Your task to perform on an android device: change alarm snooze length Image 0: 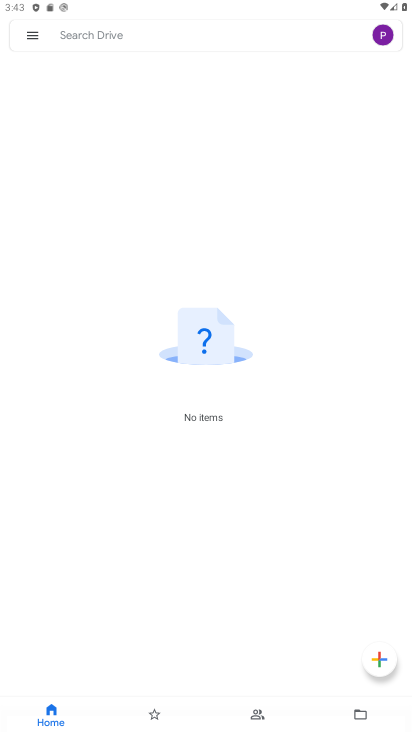
Step 0: drag from (230, 576) to (215, 133)
Your task to perform on an android device: change alarm snooze length Image 1: 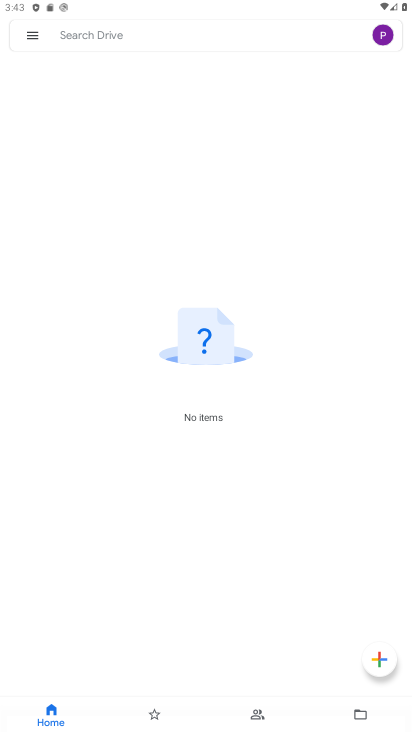
Step 1: press back button
Your task to perform on an android device: change alarm snooze length Image 2: 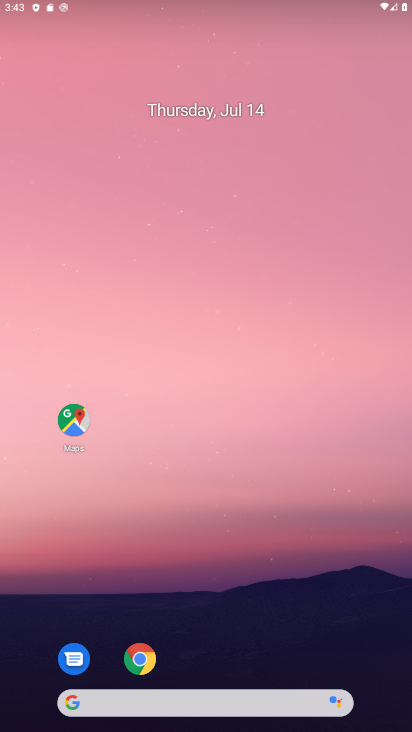
Step 2: drag from (202, 388) to (91, 35)
Your task to perform on an android device: change alarm snooze length Image 3: 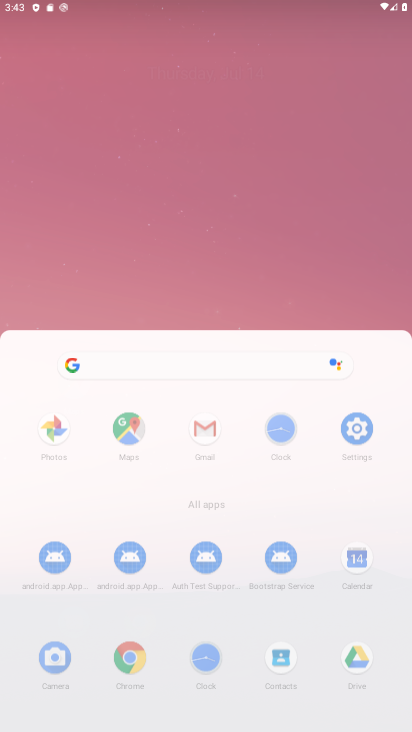
Step 3: drag from (251, 520) to (150, 130)
Your task to perform on an android device: change alarm snooze length Image 4: 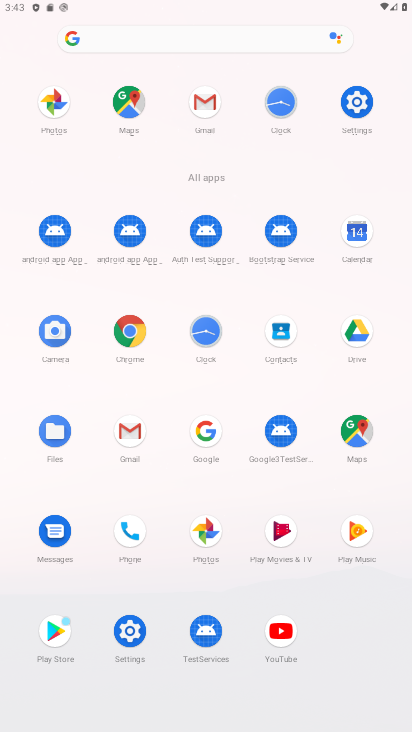
Step 4: click (202, 325)
Your task to perform on an android device: change alarm snooze length Image 5: 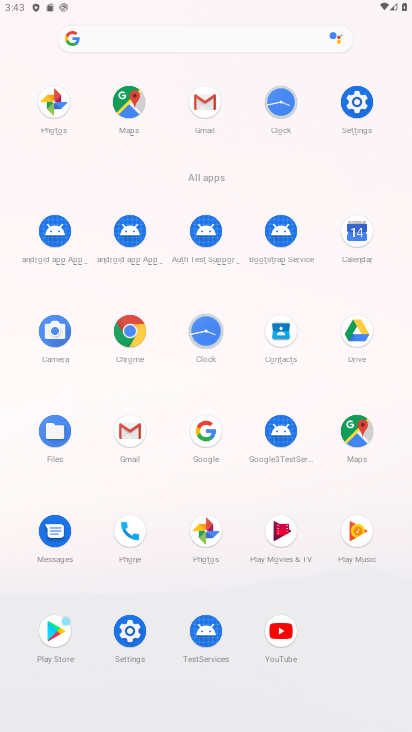
Step 5: click (204, 326)
Your task to perform on an android device: change alarm snooze length Image 6: 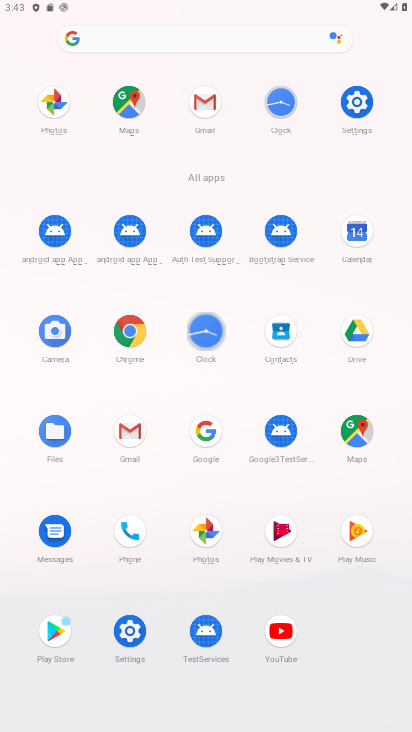
Step 6: click (205, 327)
Your task to perform on an android device: change alarm snooze length Image 7: 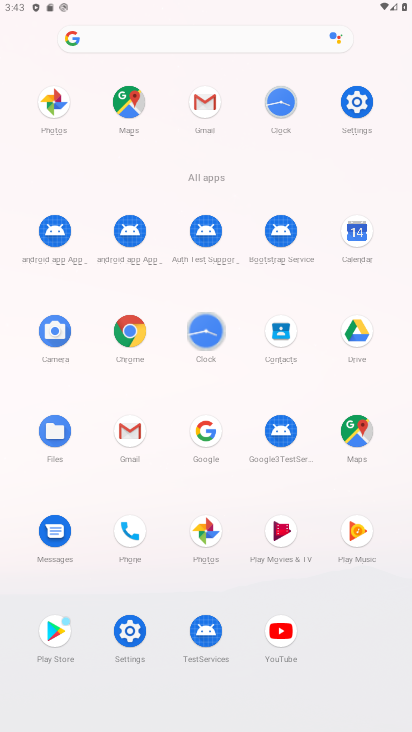
Step 7: click (206, 327)
Your task to perform on an android device: change alarm snooze length Image 8: 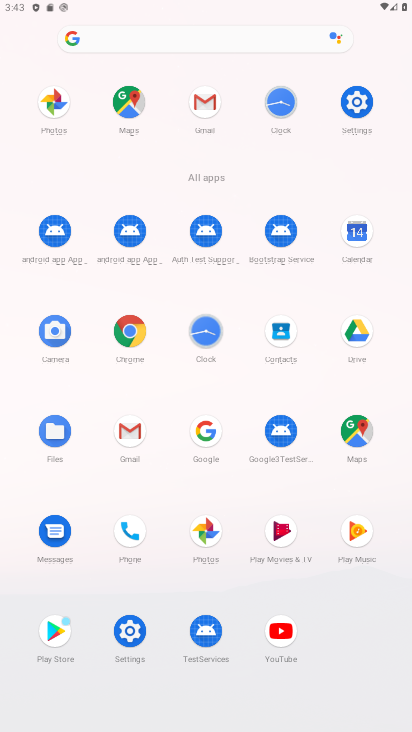
Step 8: click (213, 330)
Your task to perform on an android device: change alarm snooze length Image 9: 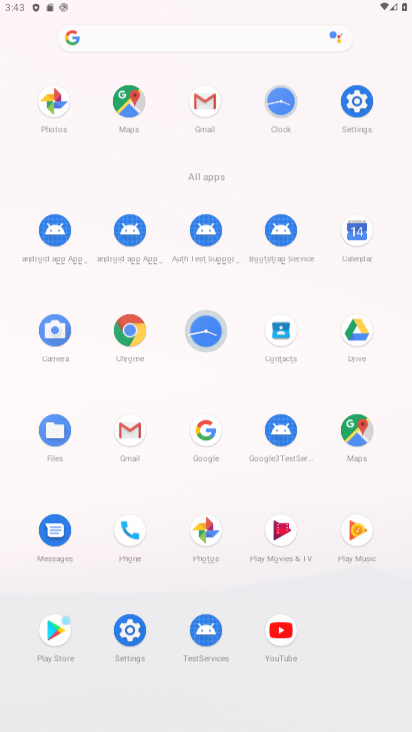
Step 9: click (218, 334)
Your task to perform on an android device: change alarm snooze length Image 10: 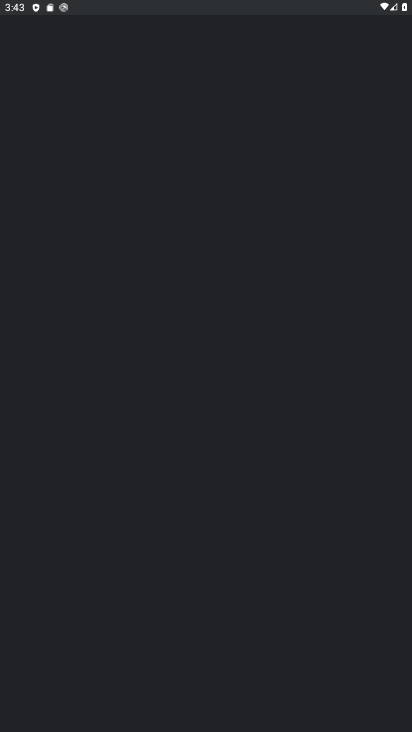
Step 10: click (216, 335)
Your task to perform on an android device: change alarm snooze length Image 11: 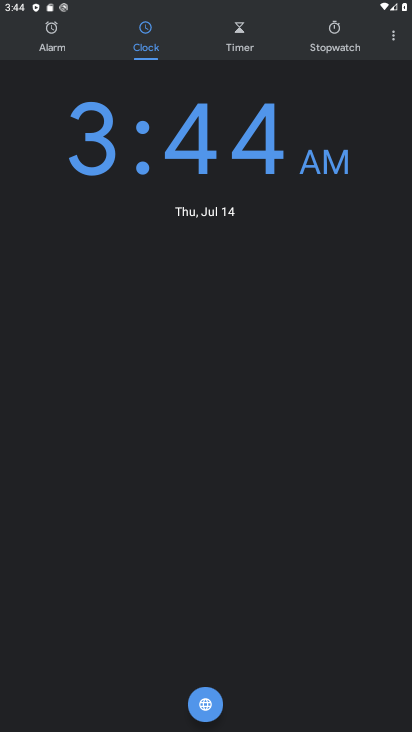
Step 11: click (391, 40)
Your task to perform on an android device: change alarm snooze length Image 12: 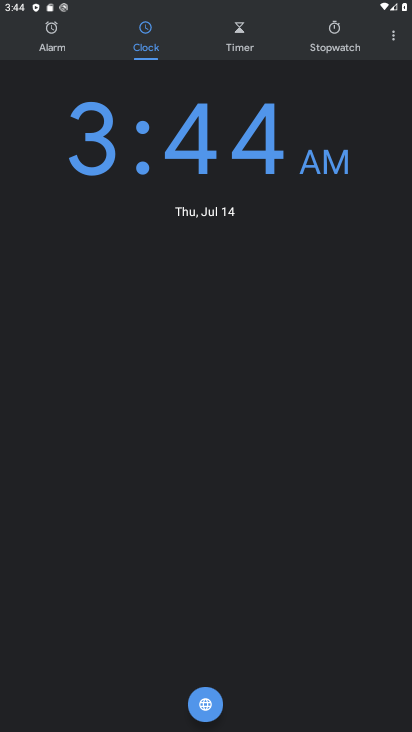
Step 12: click (399, 28)
Your task to perform on an android device: change alarm snooze length Image 13: 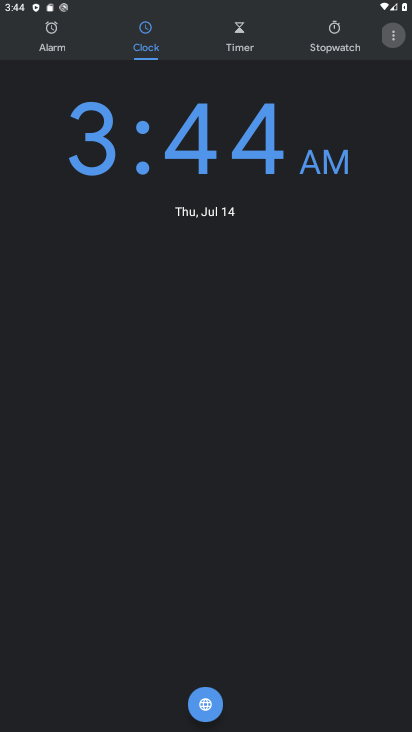
Step 13: click (399, 28)
Your task to perform on an android device: change alarm snooze length Image 14: 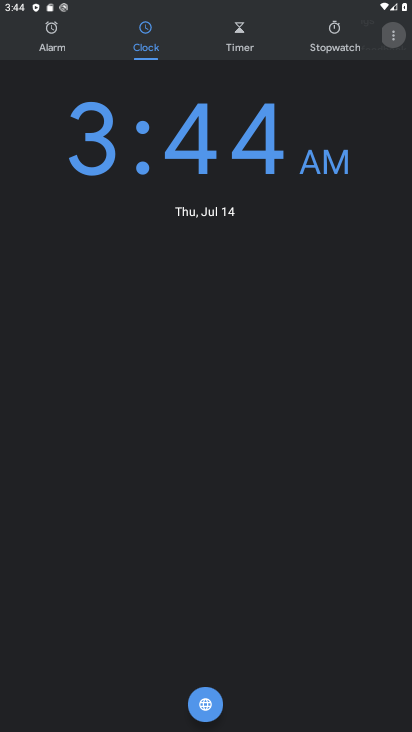
Step 14: click (398, 39)
Your task to perform on an android device: change alarm snooze length Image 15: 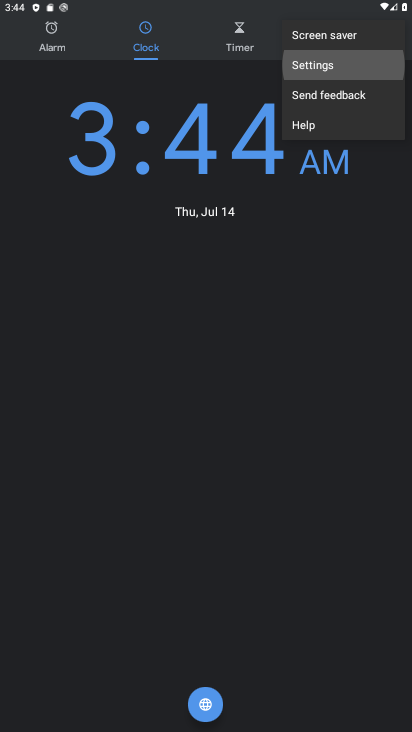
Step 15: click (398, 45)
Your task to perform on an android device: change alarm snooze length Image 16: 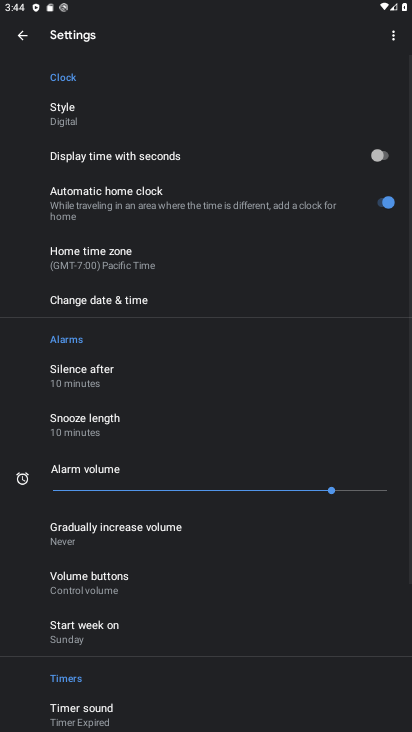
Step 16: drag from (102, 529) to (86, 134)
Your task to perform on an android device: change alarm snooze length Image 17: 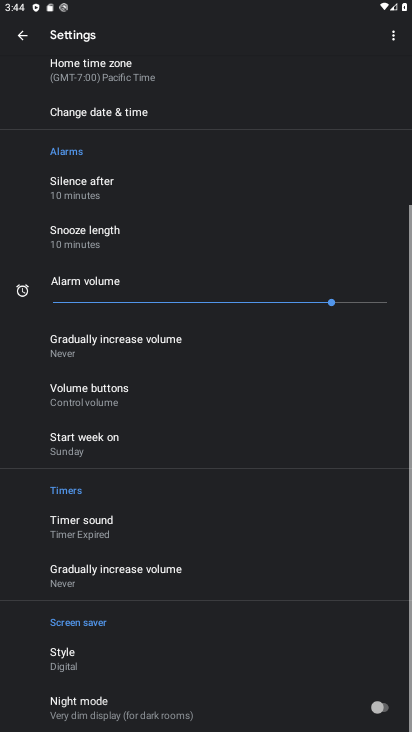
Step 17: drag from (137, 477) to (163, 276)
Your task to perform on an android device: change alarm snooze length Image 18: 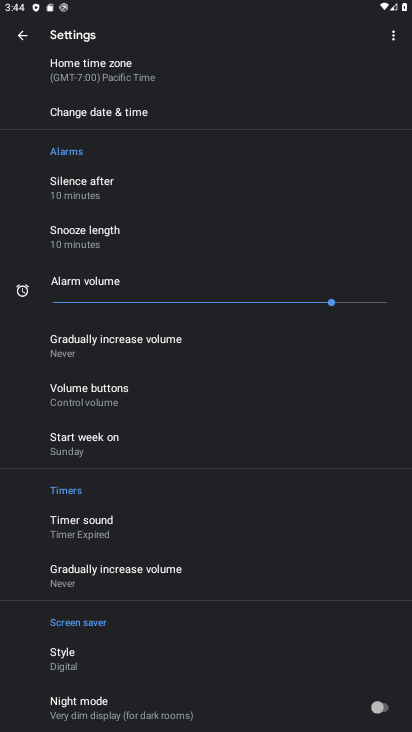
Step 18: click (96, 242)
Your task to perform on an android device: change alarm snooze length Image 19: 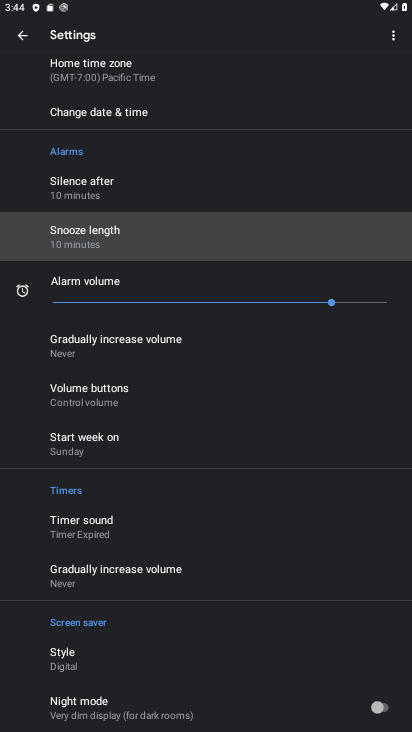
Step 19: click (84, 240)
Your task to perform on an android device: change alarm snooze length Image 20: 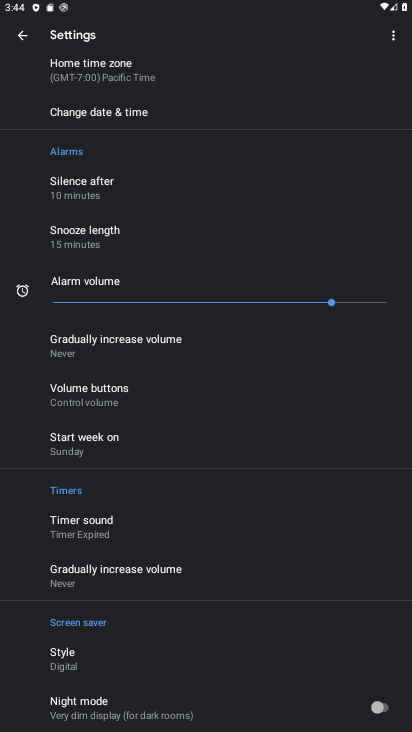
Step 20: task complete